Your task to perform on an android device: delete the emails in spam in the gmail app Image 0: 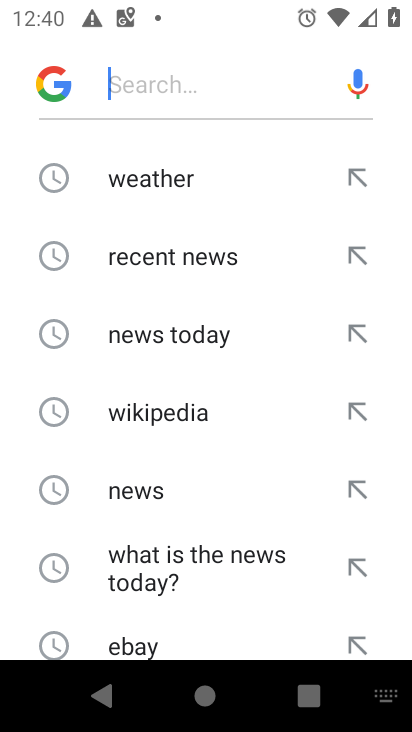
Step 0: press back button
Your task to perform on an android device: delete the emails in spam in the gmail app Image 1: 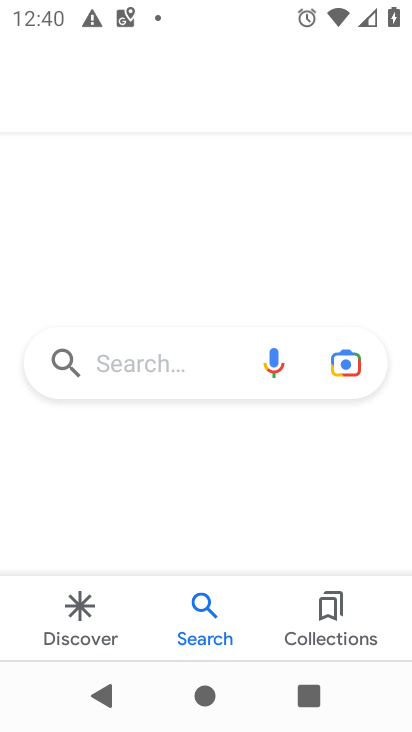
Step 1: press back button
Your task to perform on an android device: delete the emails in spam in the gmail app Image 2: 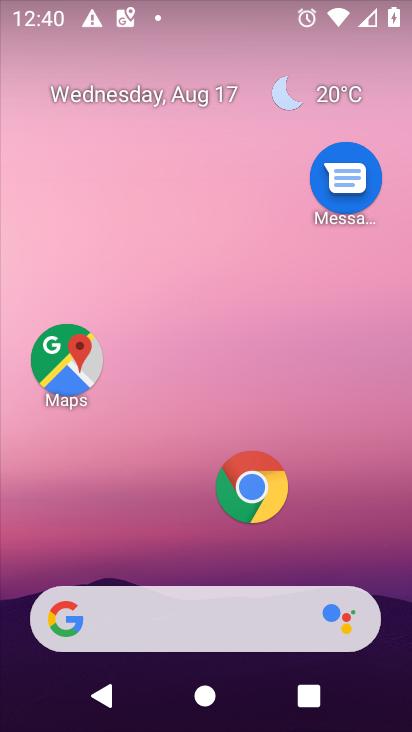
Step 2: drag from (259, 518) to (302, 43)
Your task to perform on an android device: delete the emails in spam in the gmail app Image 3: 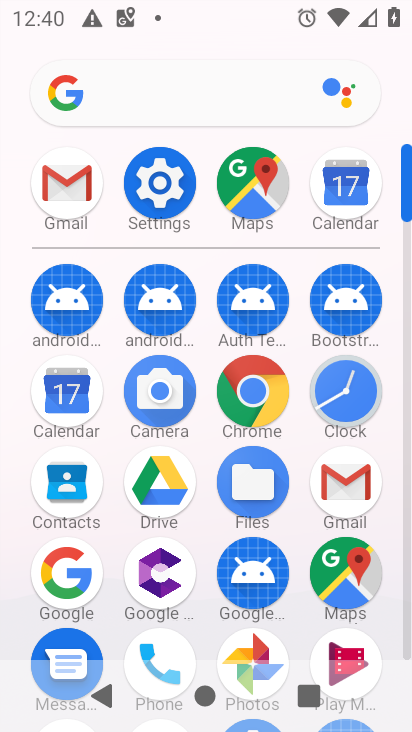
Step 3: click (65, 182)
Your task to perform on an android device: delete the emails in spam in the gmail app Image 4: 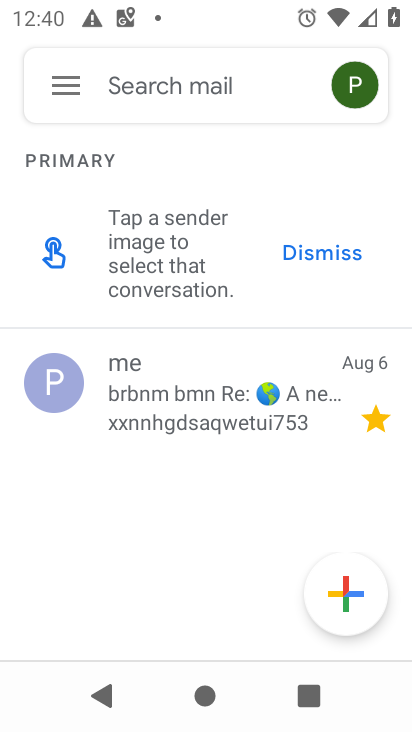
Step 4: click (71, 86)
Your task to perform on an android device: delete the emails in spam in the gmail app Image 5: 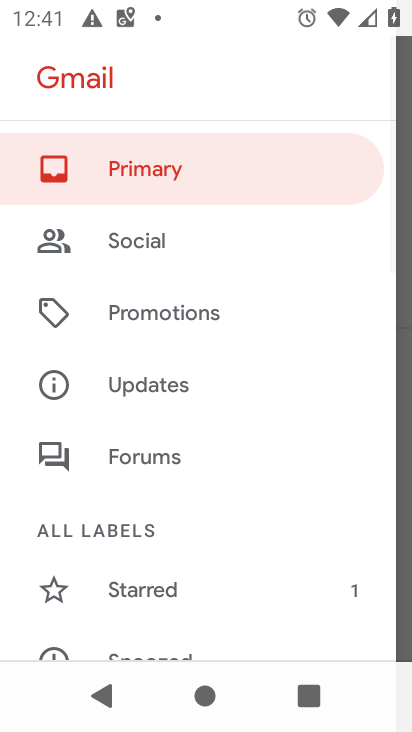
Step 5: drag from (160, 645) to (252, 128)
Your task to perform on an android device: delete the emails in spam in the gmail app Image 6: 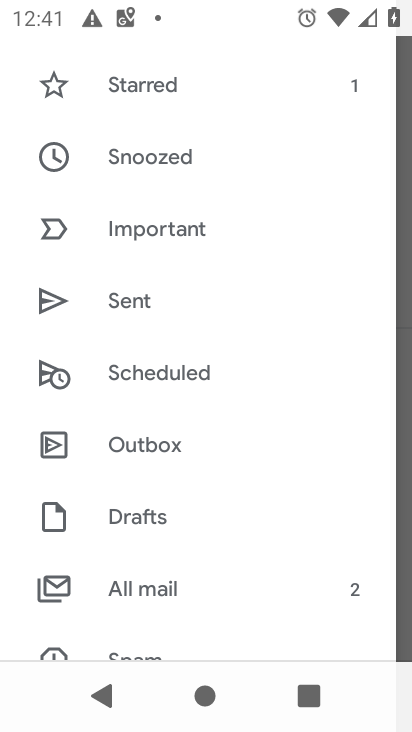
Step 6: drag from (184, 601) to (259, 171)
Your task to perform on an android device: delete the emails in spam in the gmail app Image 7: 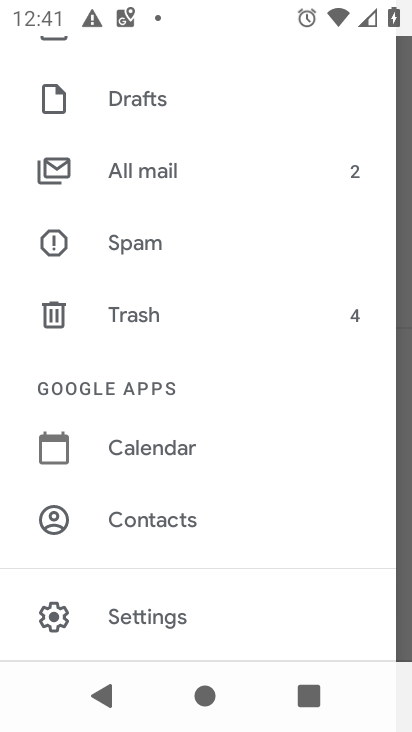
Step 7: click (163, 234)
Your task to perform on an android device: delete the emails in spam in the gmail app Image 8: 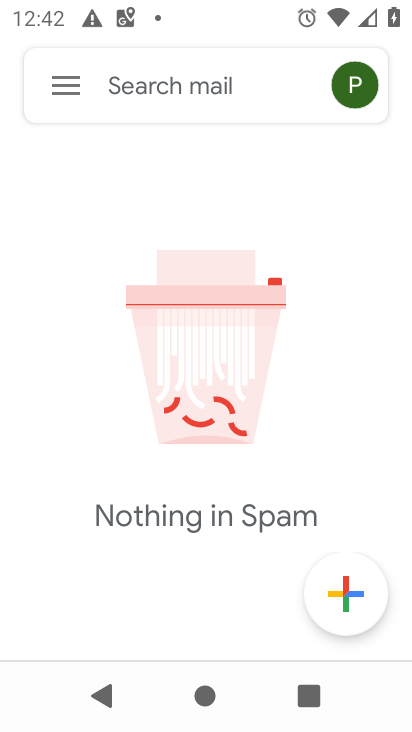
Step 8: task complete